Your task to perform on an android device: Open Google Chrome Image 0: 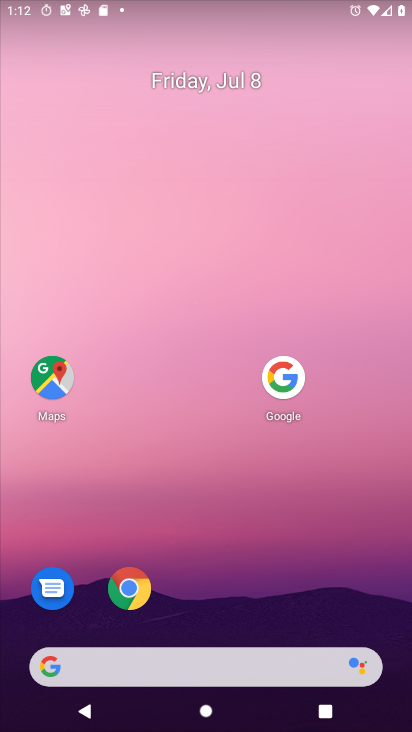
Step 0: click (122, 589)
Your task to perform on an android device: Open Google Chrome Image 1: 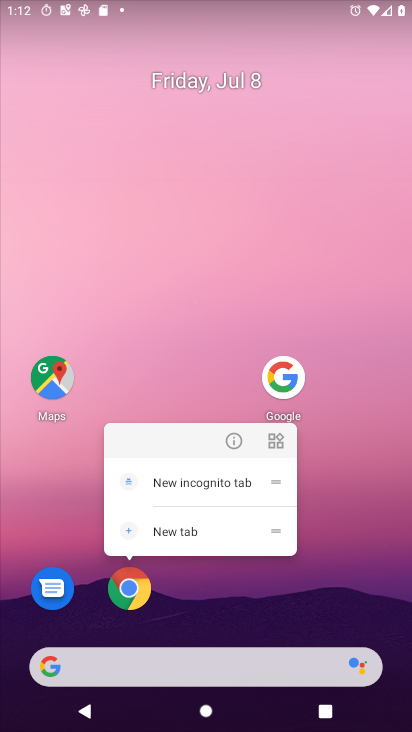
Step 1: click (130, 583)
Your task to perform on an android device: Open Google Chrome Image 2: 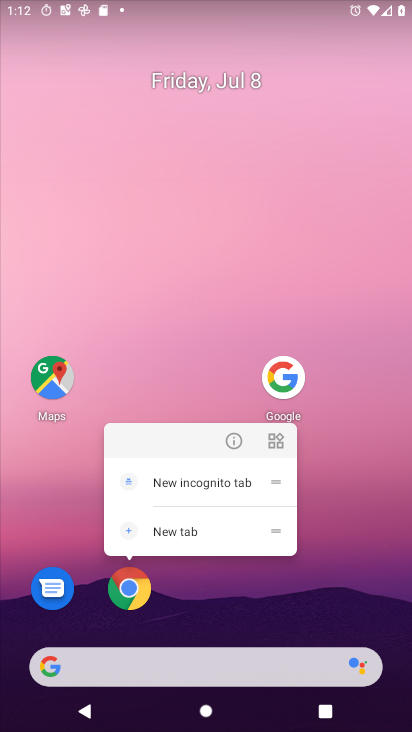
Step 2: click (132, 589)
Your task to perform on an android device: Open Google Chrome Image 3: 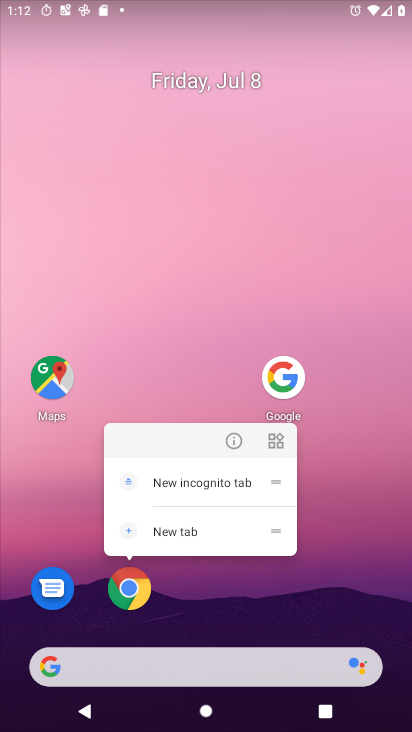
Step 3: click (132, 589)
Your task to perform on an android device: Open Google Chrome Image 4: 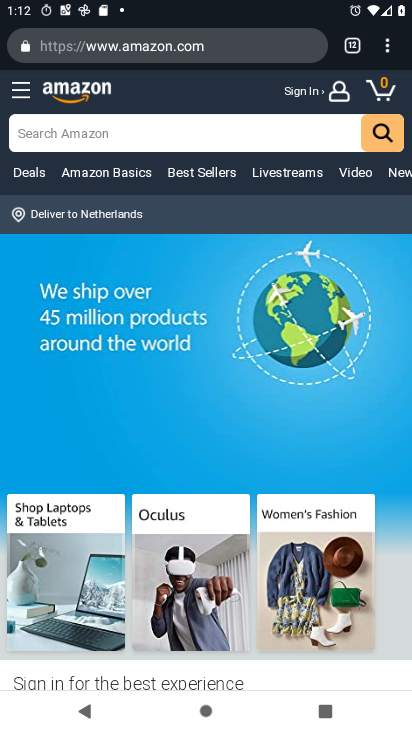
Step 4: task complete